Your task to perform on an android device: make emails show in primary in the gmail app Image 0: 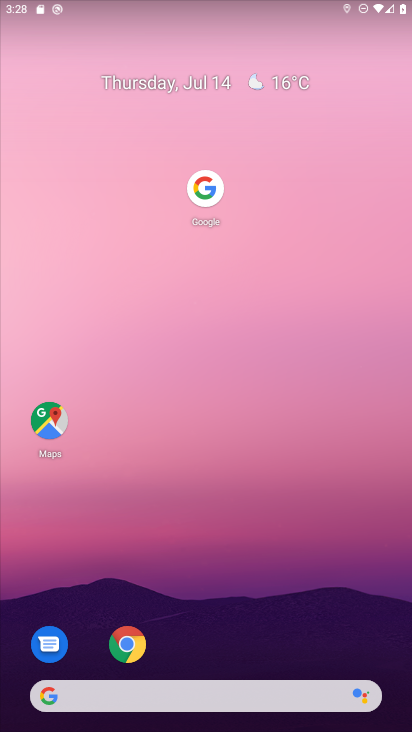
Step 0: drag from (205, 646) to (203, 221)
Your task to perform on an android device: make emails show in primary in the gmail app Image 1: 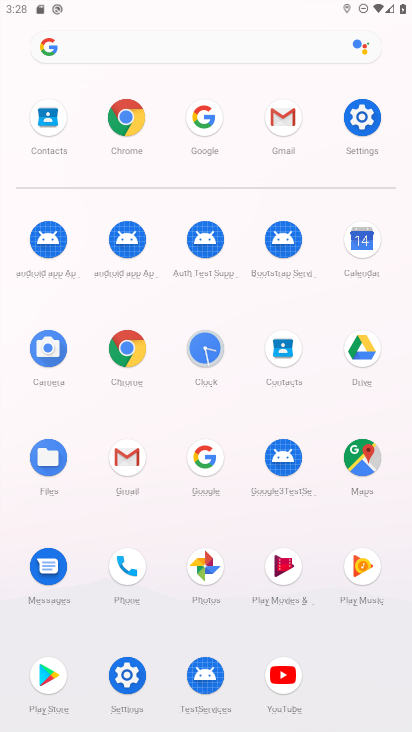
Step 1: click (263, 124)
Your task to perform on an android device: make emails show in primary in the gmail app Image 2: 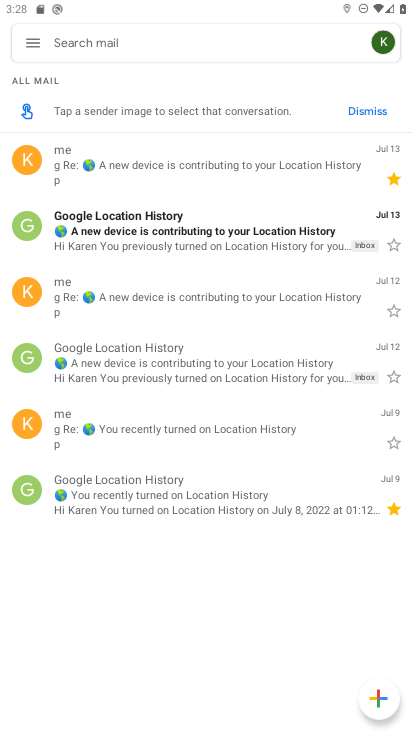
Step 2: click (40, 45)
Your task to perform on an android device: make emails show in primary in the gmail app Image 3: 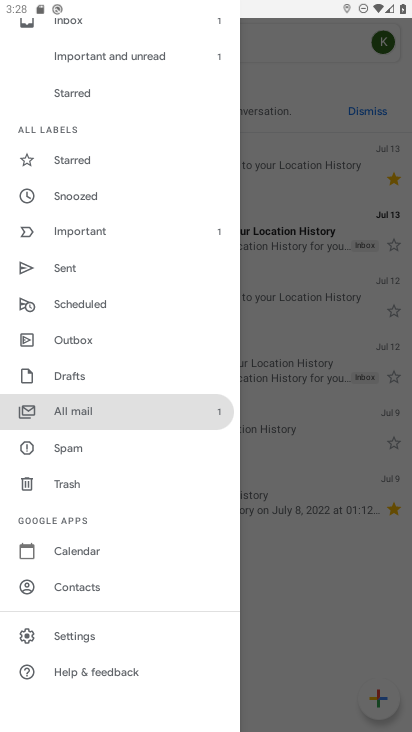
Step 3: click (122, 631)
Your task to perform on an android device: make emails show in primary in the gmail app Image 4: 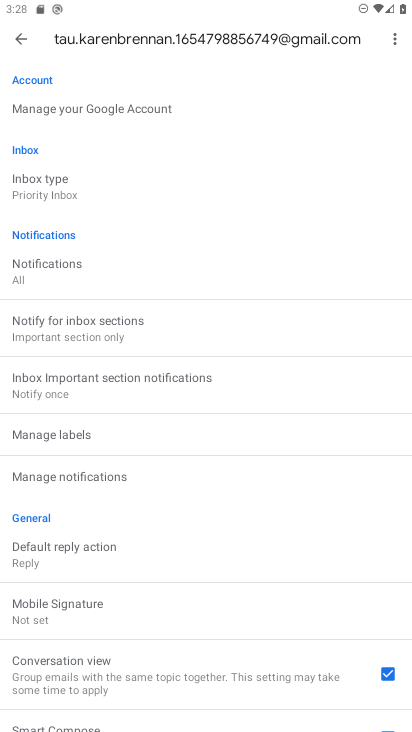
Step 4: click (75, 196)
Your task to perform on an android device: make emails show in primary in the gmail app Image 5: 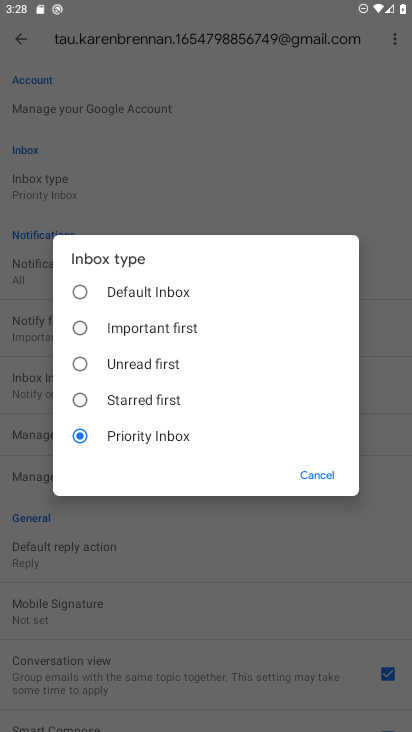
Step 5: click (126, 294)
Your task to perform on an android device: make emails show in primary in the gmail app Image 6: 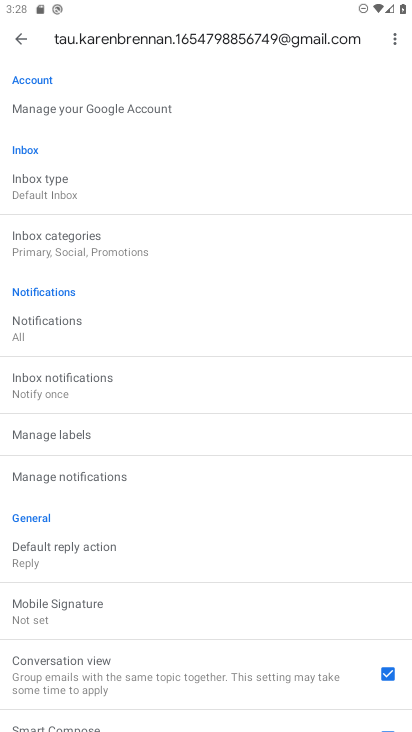
Step 6: task complete